Your task to perform on an android device: turn pop-ups on in chrome Image 0: 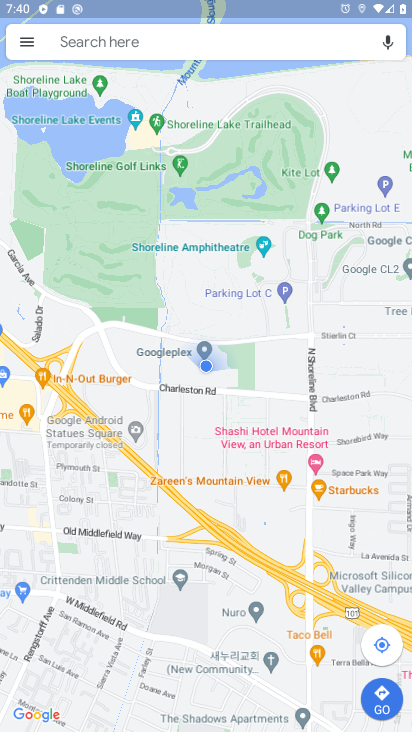
Step 0: press home button
Your task to perform on an android device: turn pop-ups on in chrome Image 1: 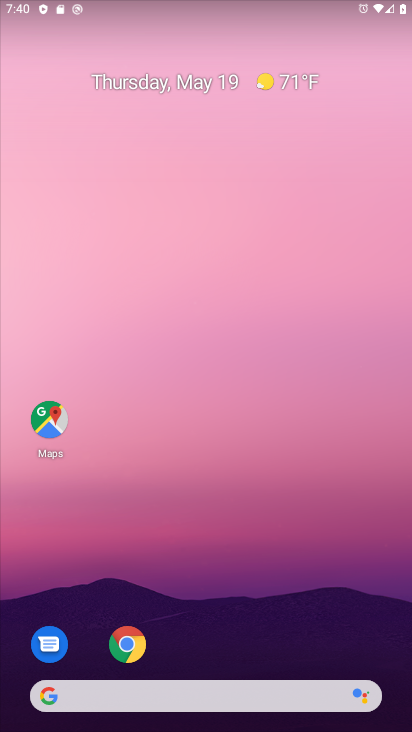
Step 1: click (126, 643)
Your task to perform on an android device: turn pop-ups on in chrome Image 2: 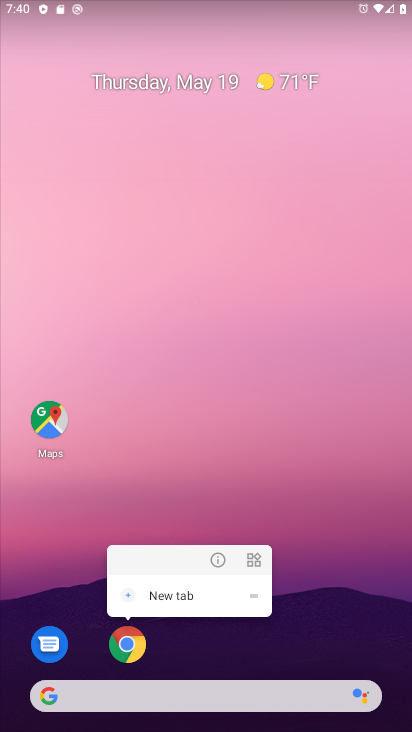
Step 2: click (126, 643)
Your task to perform on an android device: turn pop-ups on in chrome Image 3: 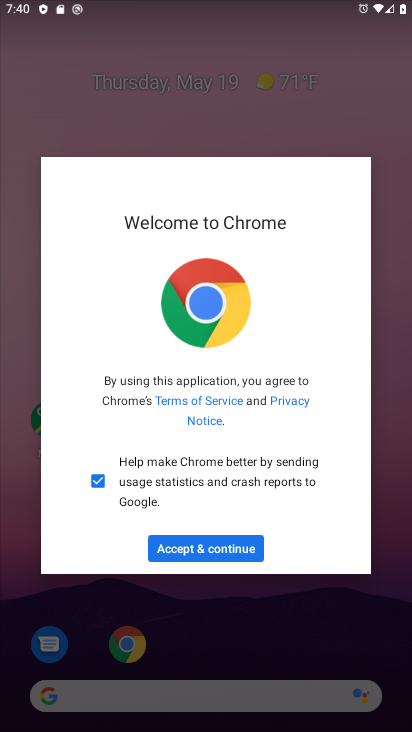
Step 3: click (201, 551)
Your task to perform on an android device: turn pop-ups on in chrome Image 4: 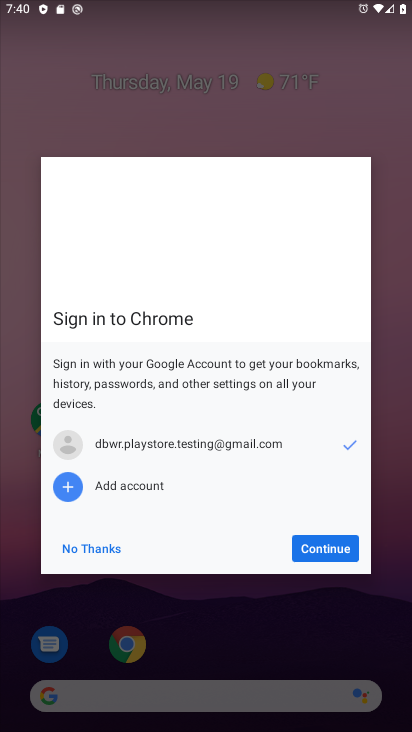
Step 4: click (348, 550)
Your task to perform on an android device: turn pop-ups on in chrome Image 5: 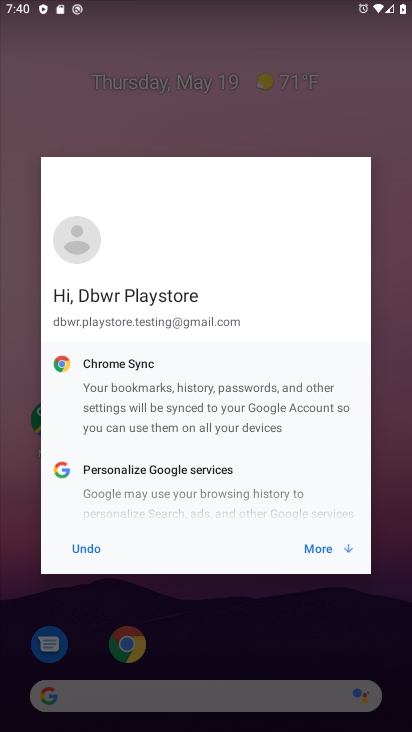
Step 5: click (324, 552)
Your task to perform on an android device: turn pop-ups on in chrome Image 6: 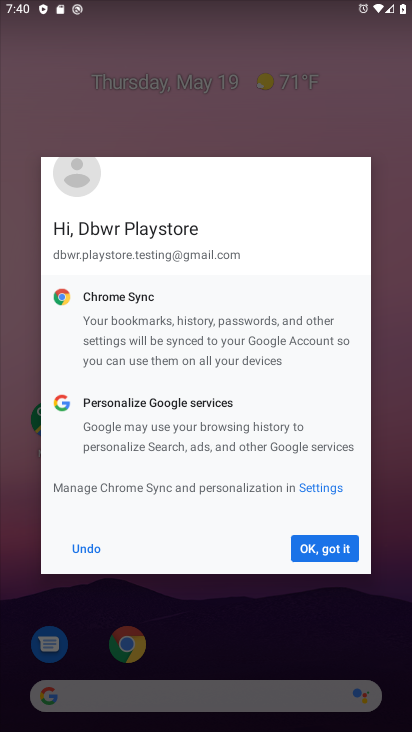
Step 6: click (315, 558)
Your task to perform on an android device: turn pop-ups on in chrome Image 7: 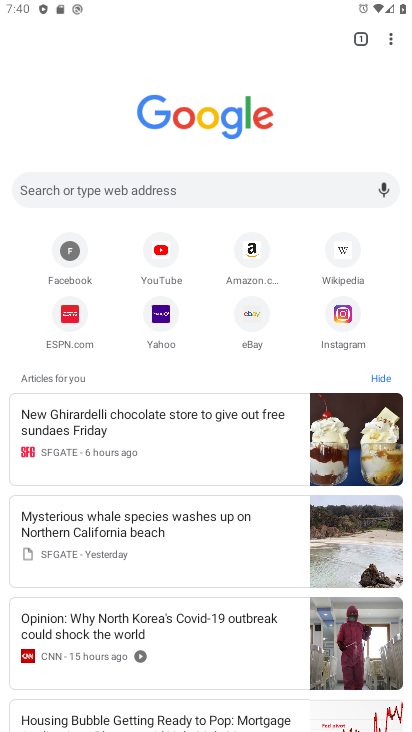
Step 7: click (392, 45)
Your task to perform on an android device: turn pop-ups on in chrome Image 8: 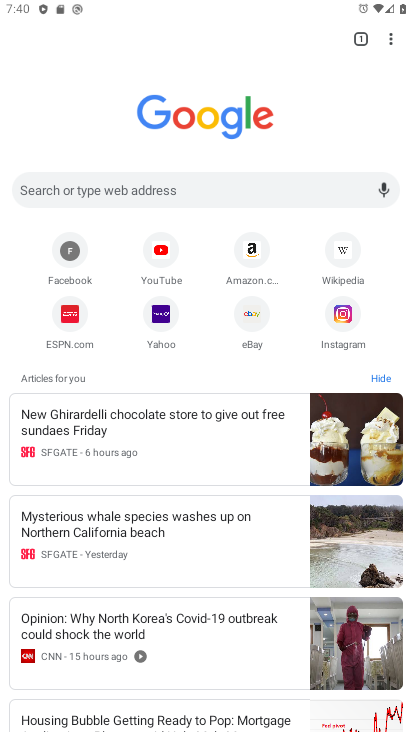
Step 8: click (393, 35)
Your task to perform on an android device: turn pop-ups on in chrome Image 9: 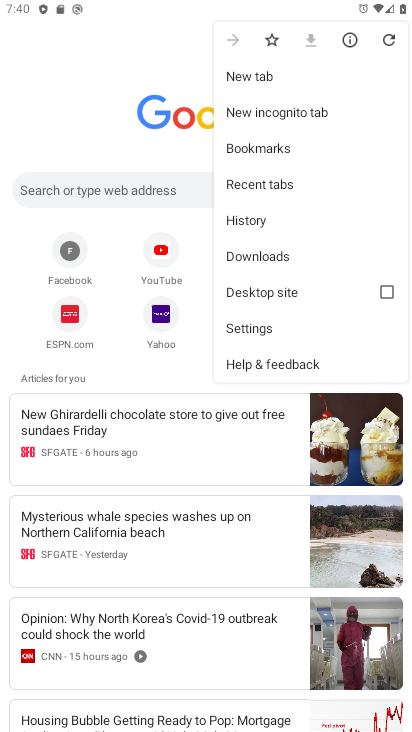
Step 9: click (259, 334)
Your task to perform on an android device: turn pop-ups on in chrome Image 10: 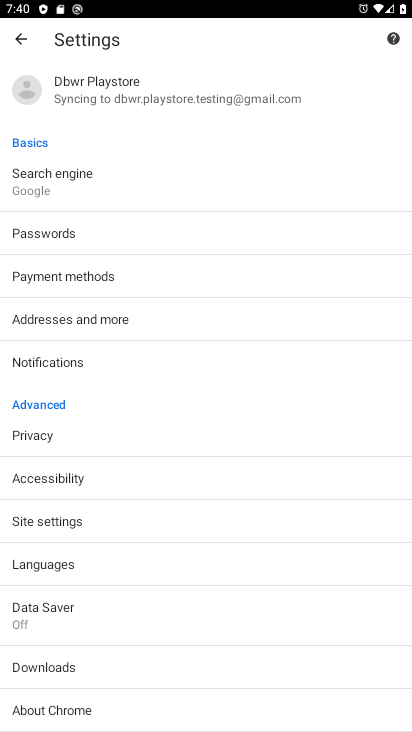
Step 10: drag from (154, 653) to (138, 385)
Your task to perform on an android device: turn pop-ups on in chrome Image 11: 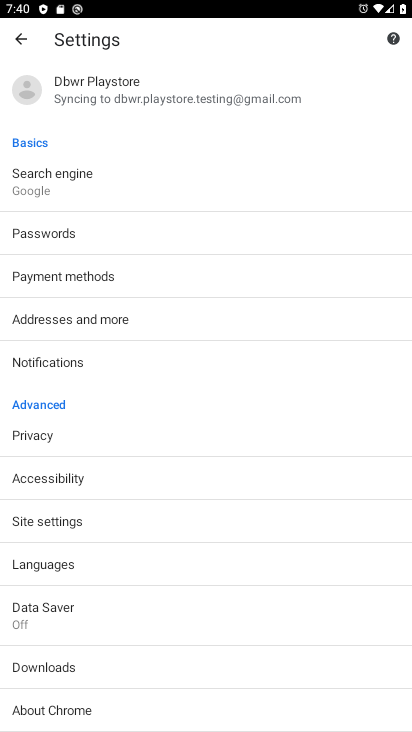
Step 11: drag from (87, 673) to (120, 369)
Your task to perform on an android device: turn pop-ups on in chrome Image 12: 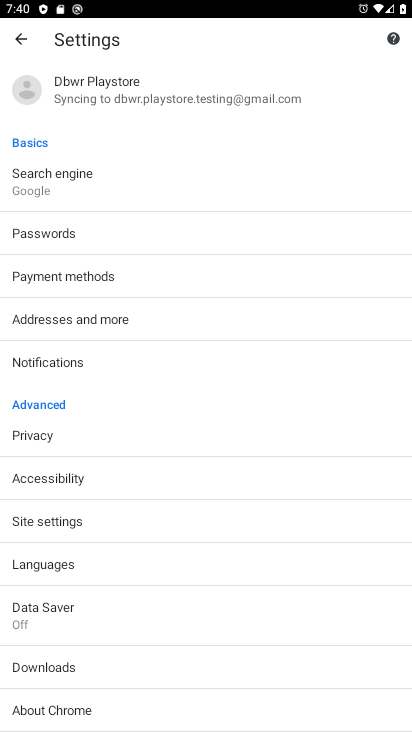
Step 12: click (60, 524)
Your task to perform on an android device: turn pop-ups on in chrome Image 13: 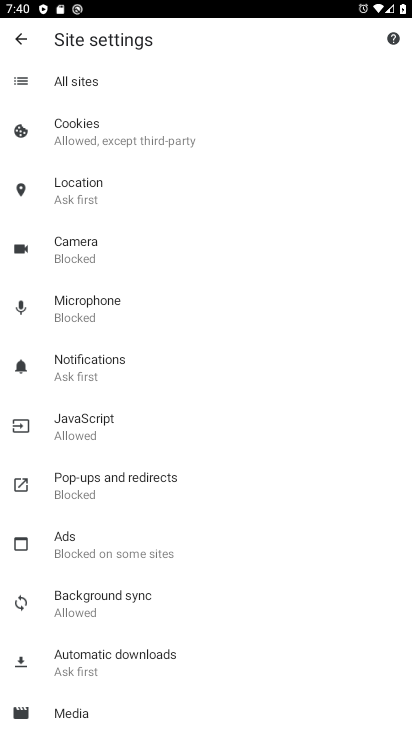
Step 13: click (98, 491)
Your task to perform on an android device: turn pop-ups on in chrome Image 14: 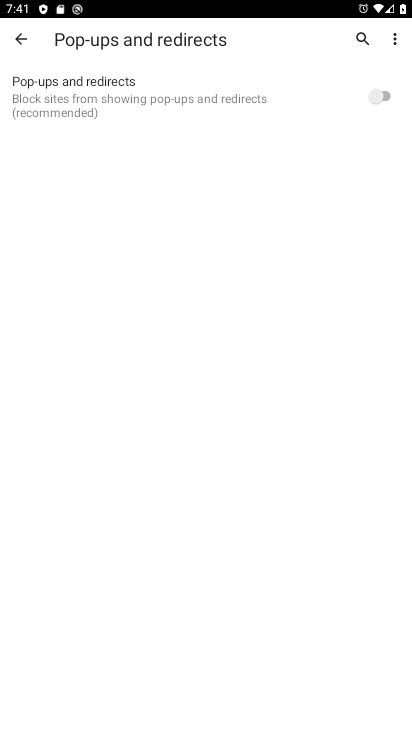
Step 14: click (390, 96)
Your task to perform on an android device: turn pop-ups on in chrome Image 15: 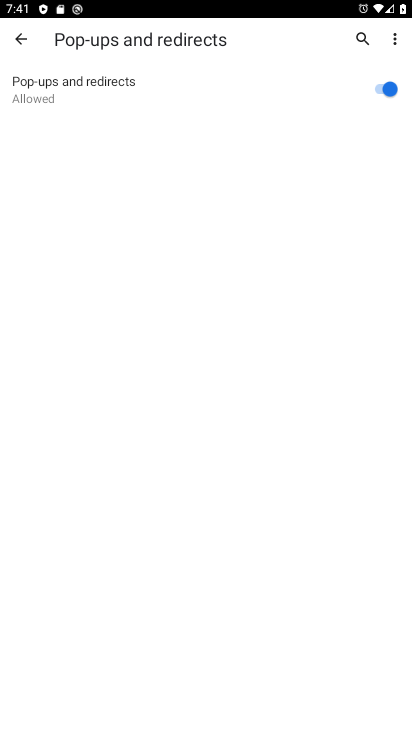
Step 15: task complete